Your task to perform on an android device: delete browsing data in the chrome app Image 0: 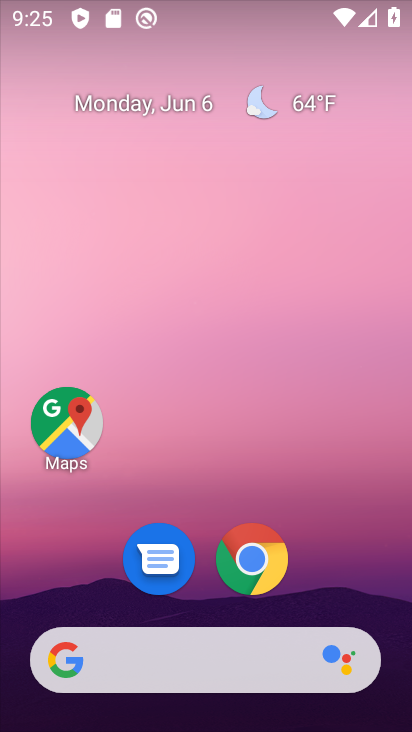
Step 0: click (262, 556)
Your task to perform on an android device: delete browsing data in the chrome app Image 1: 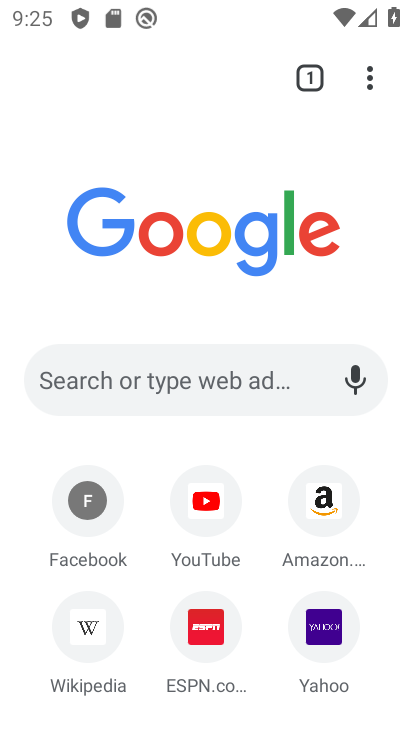
Step 1: click (371, 85)
Your task to perform on an android device: delete browsing data in the chrome app Image 2: 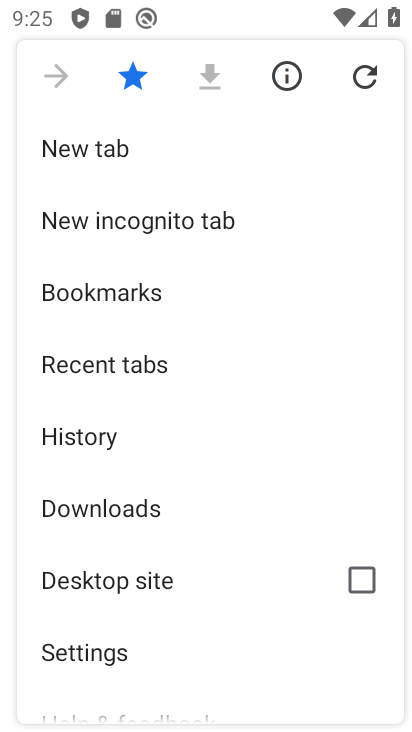
Step 2: click (81, 435)
Your task to perform on an android device: delete browsing data in the chrome app Image 3: 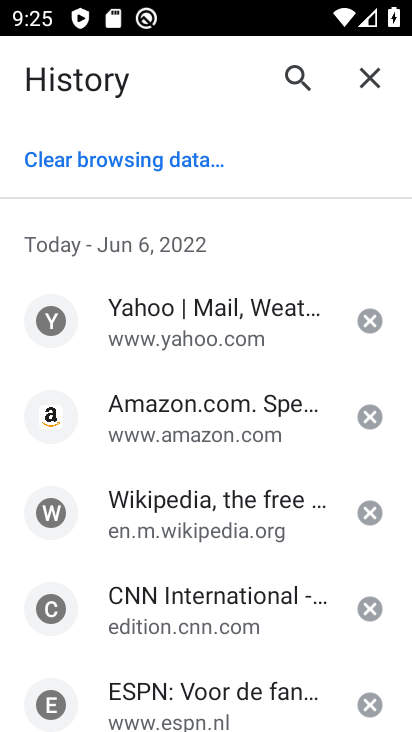
Step 3: click (125, 158)
Your task to perform on an android device: delete browsing data in the chrome app Image 4: 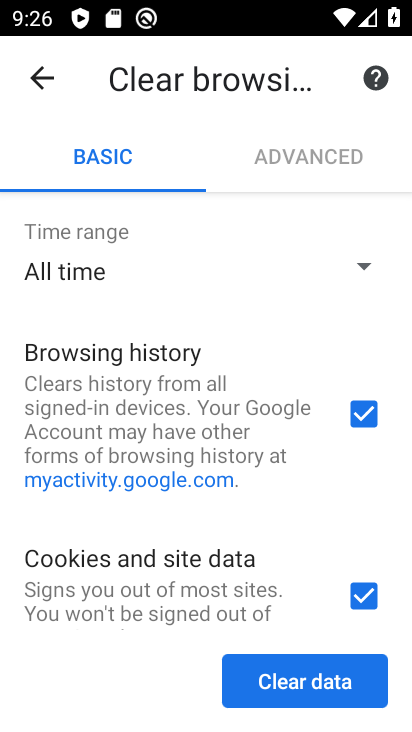
Step 4: click (353, 592)
Your task to perform on an android device: delete browsing data in the chrome app Image 5: 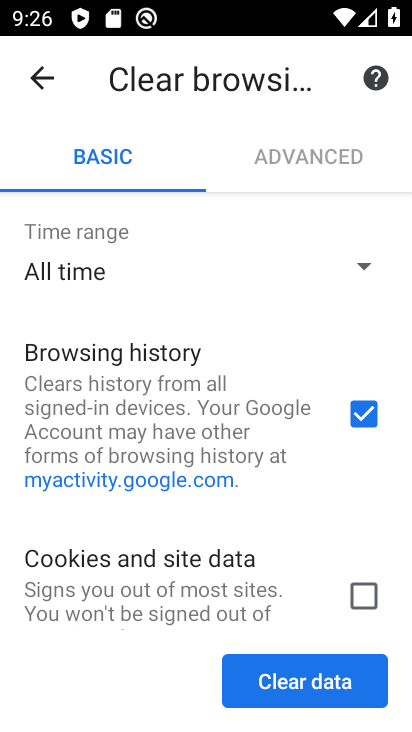
Step 5: drag from (307, 587) to (279, 314)
Your task to perform on an android device: delete browsing data in the chrome app Image 6: 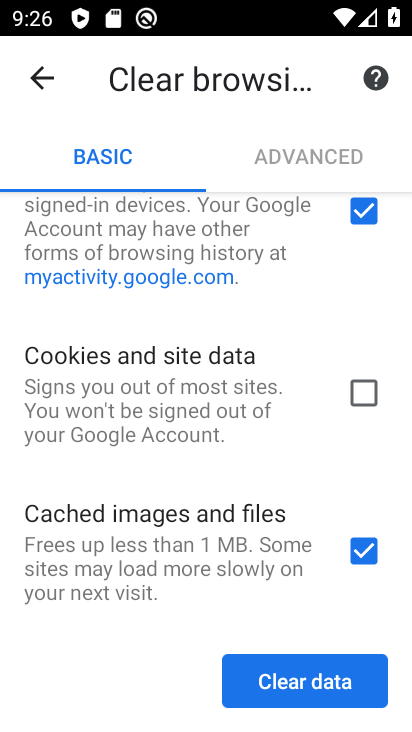
Step 6: click (356, 545)
Your task to perform on an android device: delete browsing data in the chrome app Image 7: 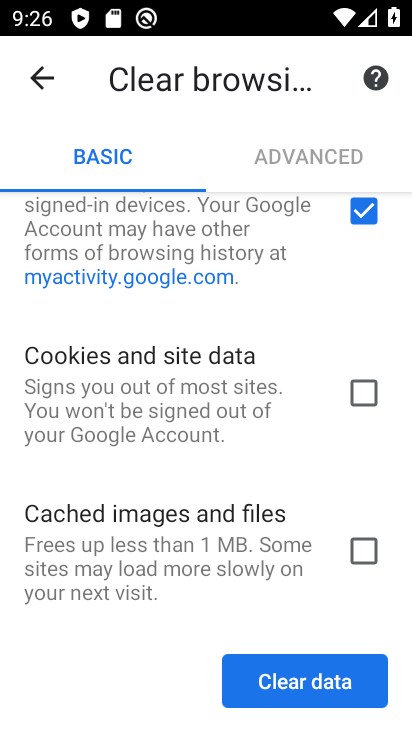
Step 7: click (283, 256)
Your task to perform on an android device: delete browsing data in the chrome app Image 8: 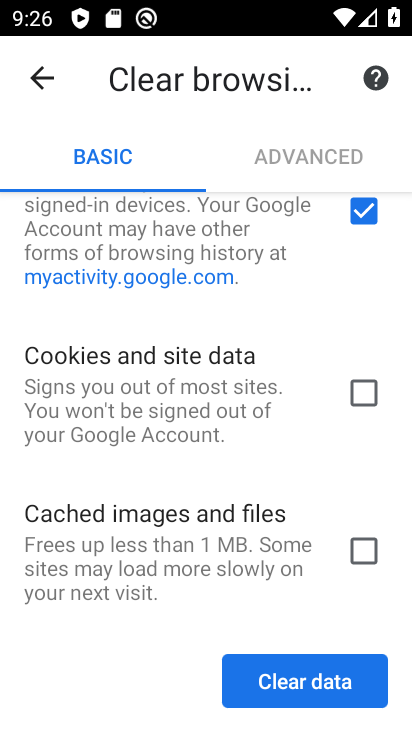
Step 8: click (326, 684)
Your task to perform on an android device: delete browsing data in the chrome app Image 9: 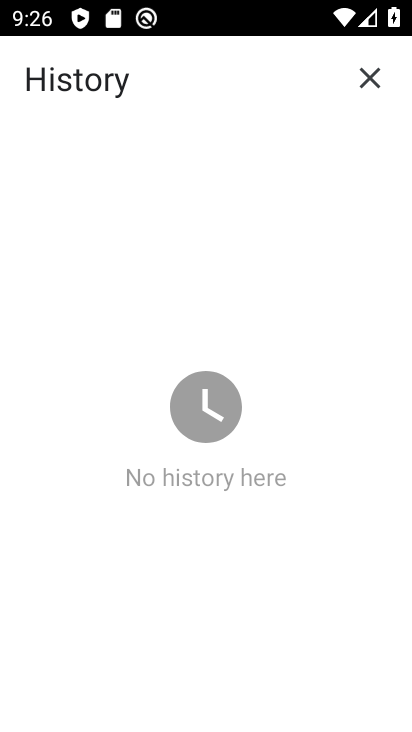
Step 9: task complete